Your task to perform on an android device: delete a single message in the gmail app Image 0: 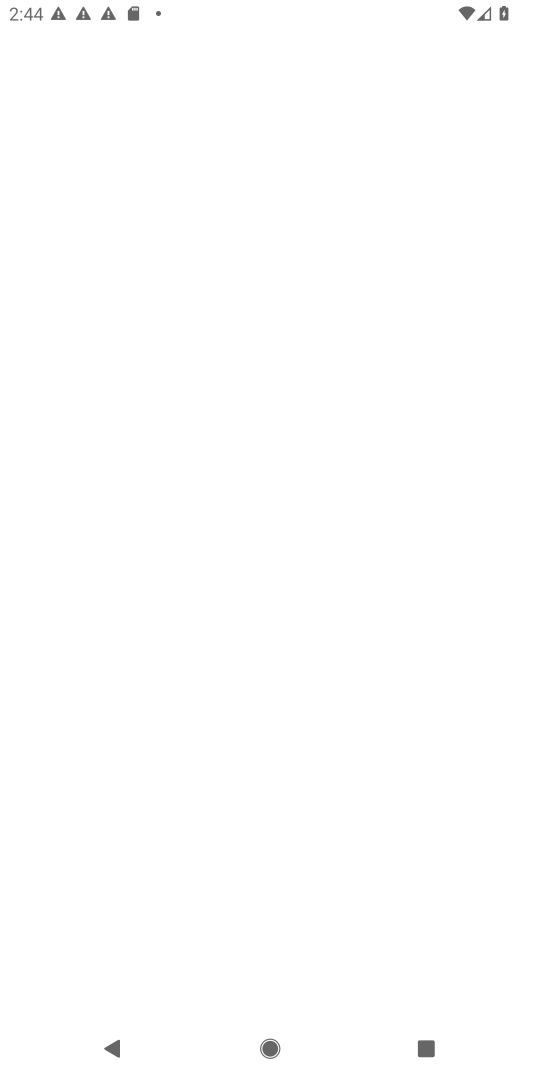
Step 0: press home button
Your task to perform on an android device: delete a single message in the gmail app Image 1: 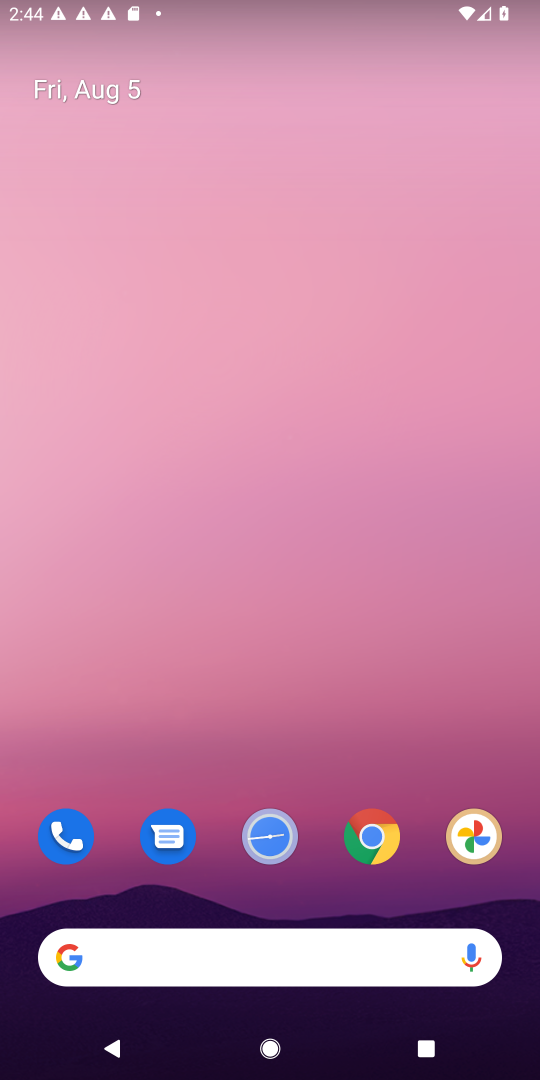
Step 1: drag from (123, 767) to (292, 75)
Your task to perform on an android device: delete a single message in the gmail app Image 2: 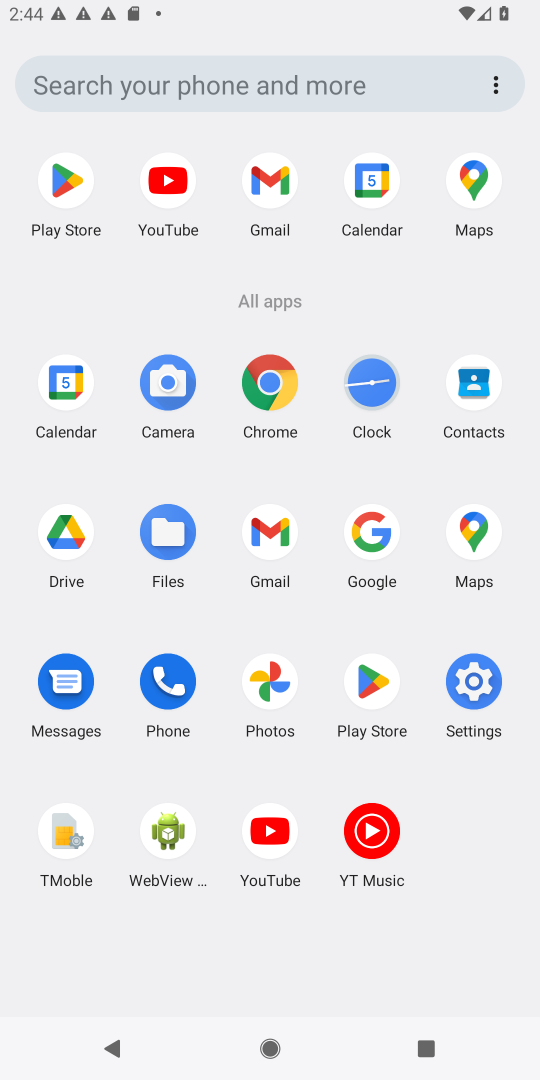
Step 2: click (268, 152)
Your task to perform on an android device: delete a single message in the gmail app Image 3: 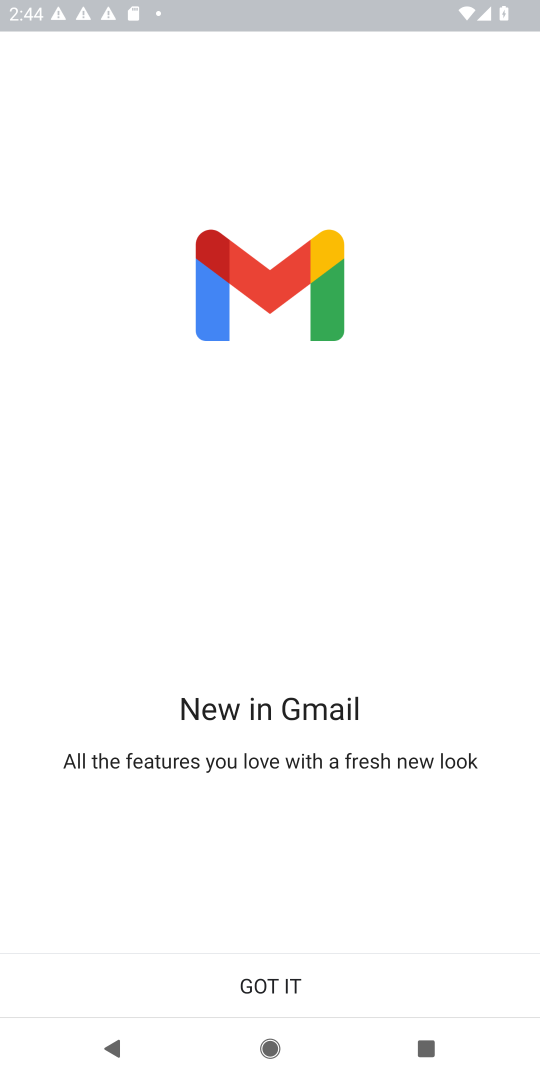
Step 3: click (230, 998)
Your task to perform on an android device: delete a single message in the gmail app Image 4: 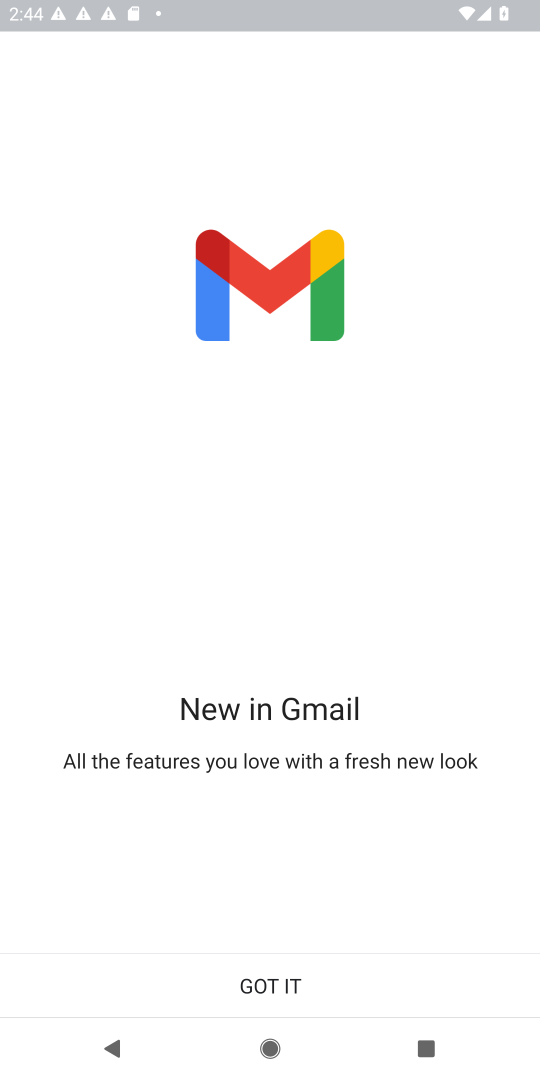
Step 4: click (298, 969)
Your task to perform on an android device: delete a single message in the gmail app Image 5: 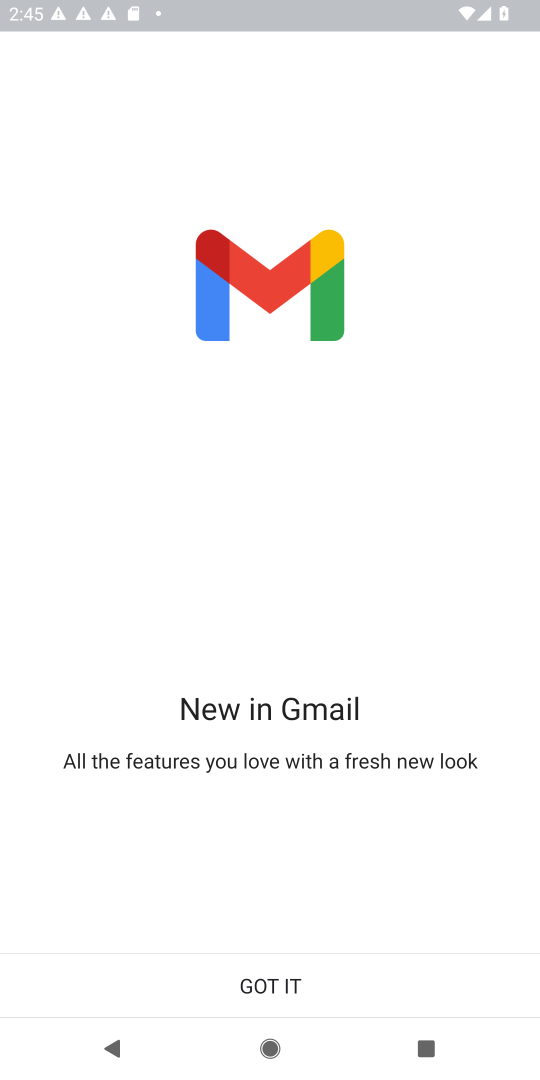
Step 5: click (298, 966)
Your task to perform on an android device: delete a single message in the gmail app Image 6: 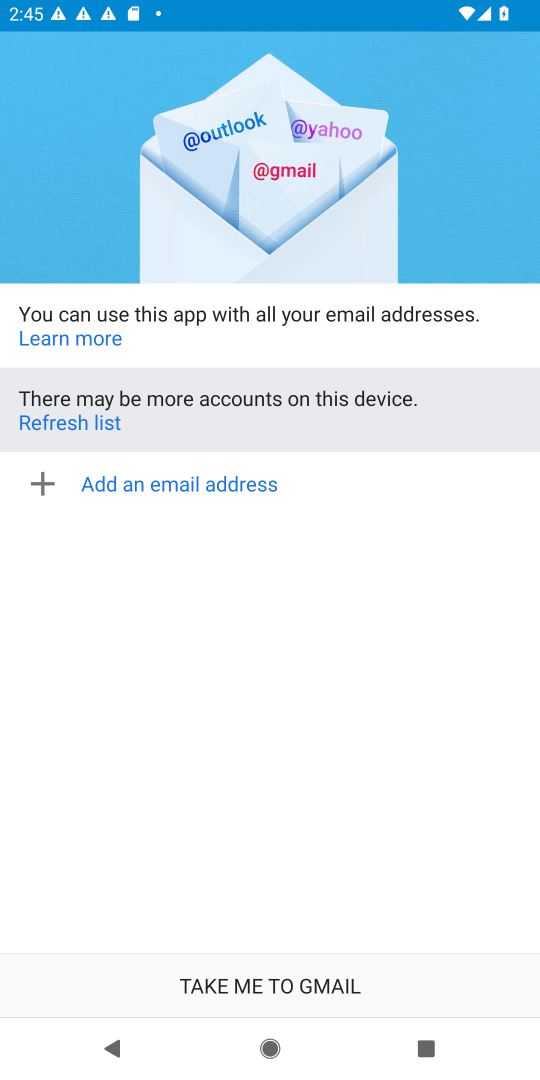
Step 6: click (298, 965)
Your task to perform on an android device: delete a single message in the gmail app Image 7: 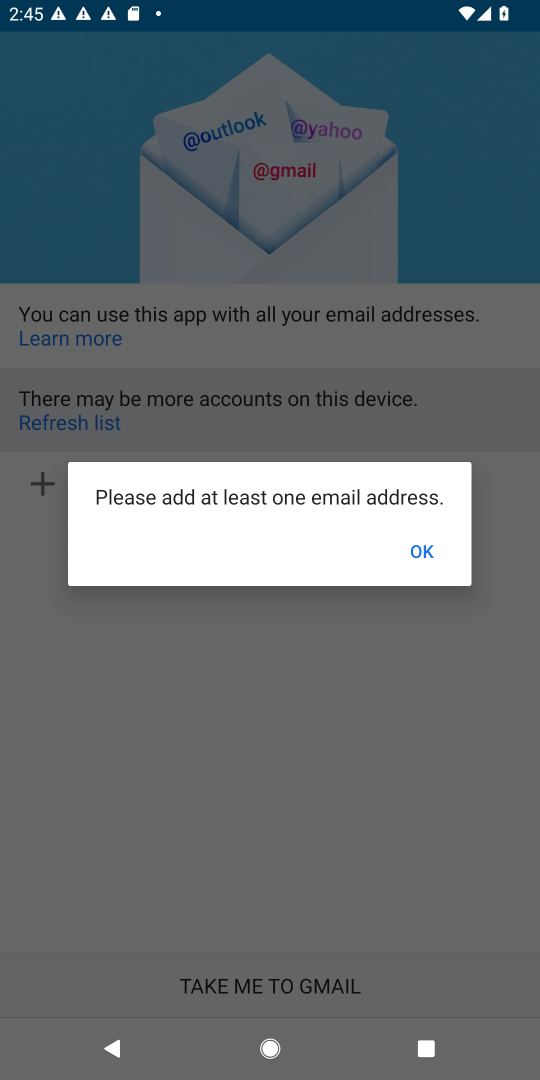
Step 7: task complete